Your task to perform on an android device: View the shopping cart on amazon. Add "beats solo 3" to the cart on amazon, then select checkout. Image 0: 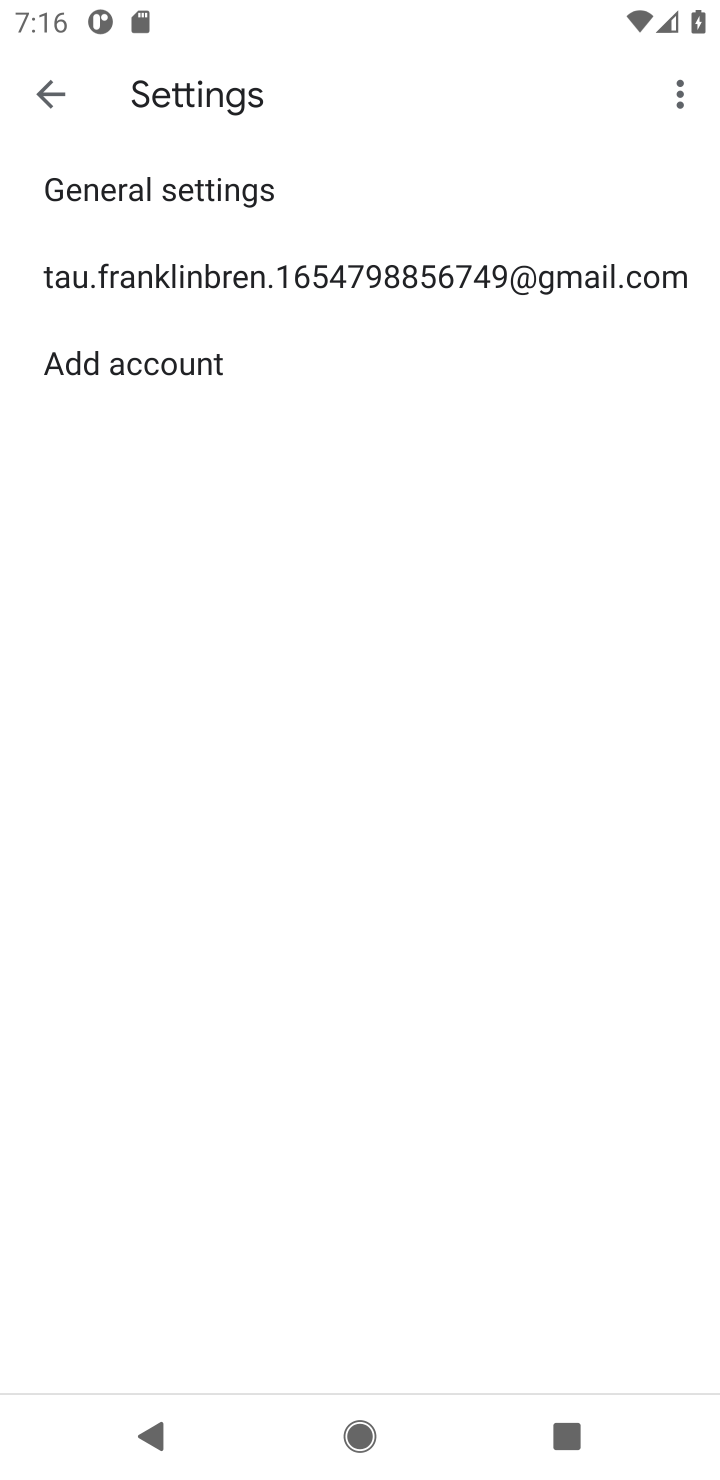
Step 0: press home button
Your task to perform on an android device: View the shopping cart on amazon. Add "beats solo 3" to the cart on amazon, then select checkout. Image 1: 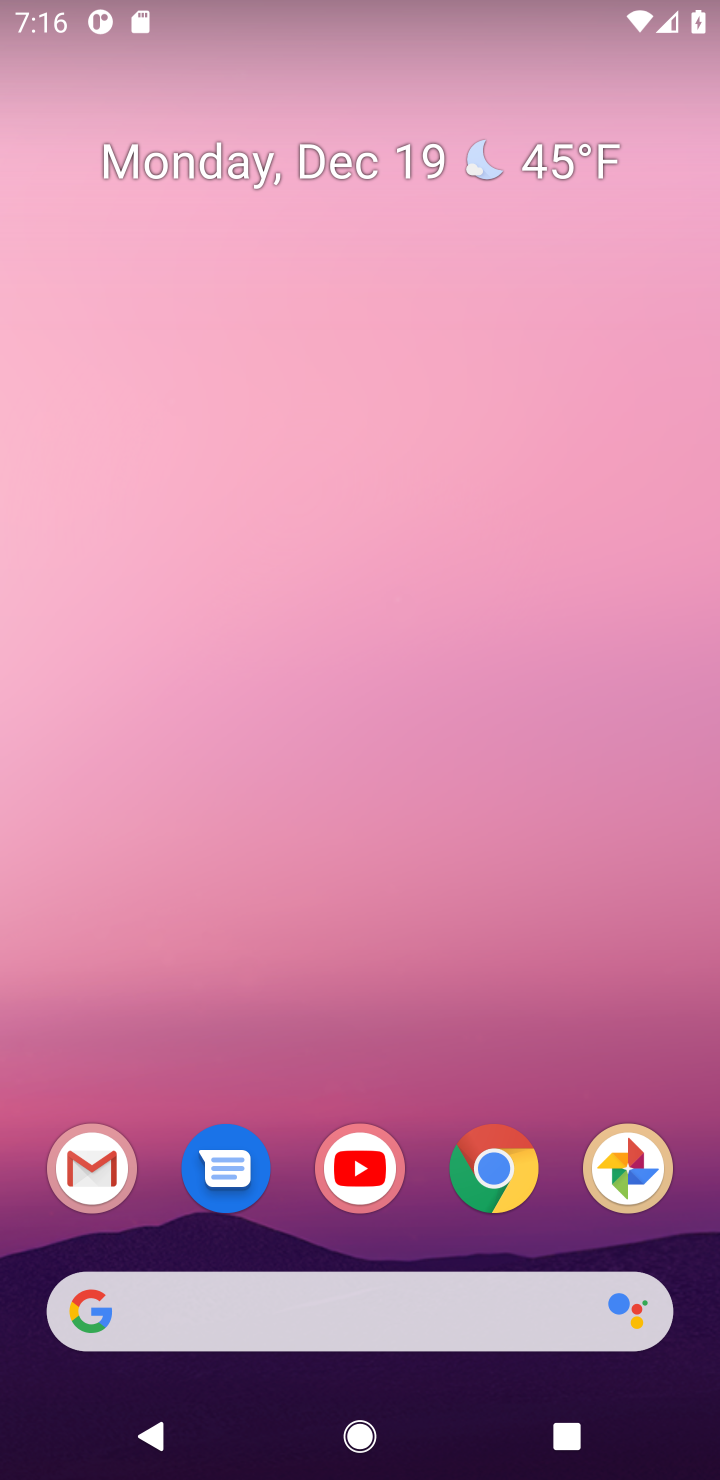
Step 1: click (482, 1170)
Your task to perform on an android device: View the shopping cart on amazon. Add "beats solo 3" to the cart on amazon, then select checkout. Image 2: 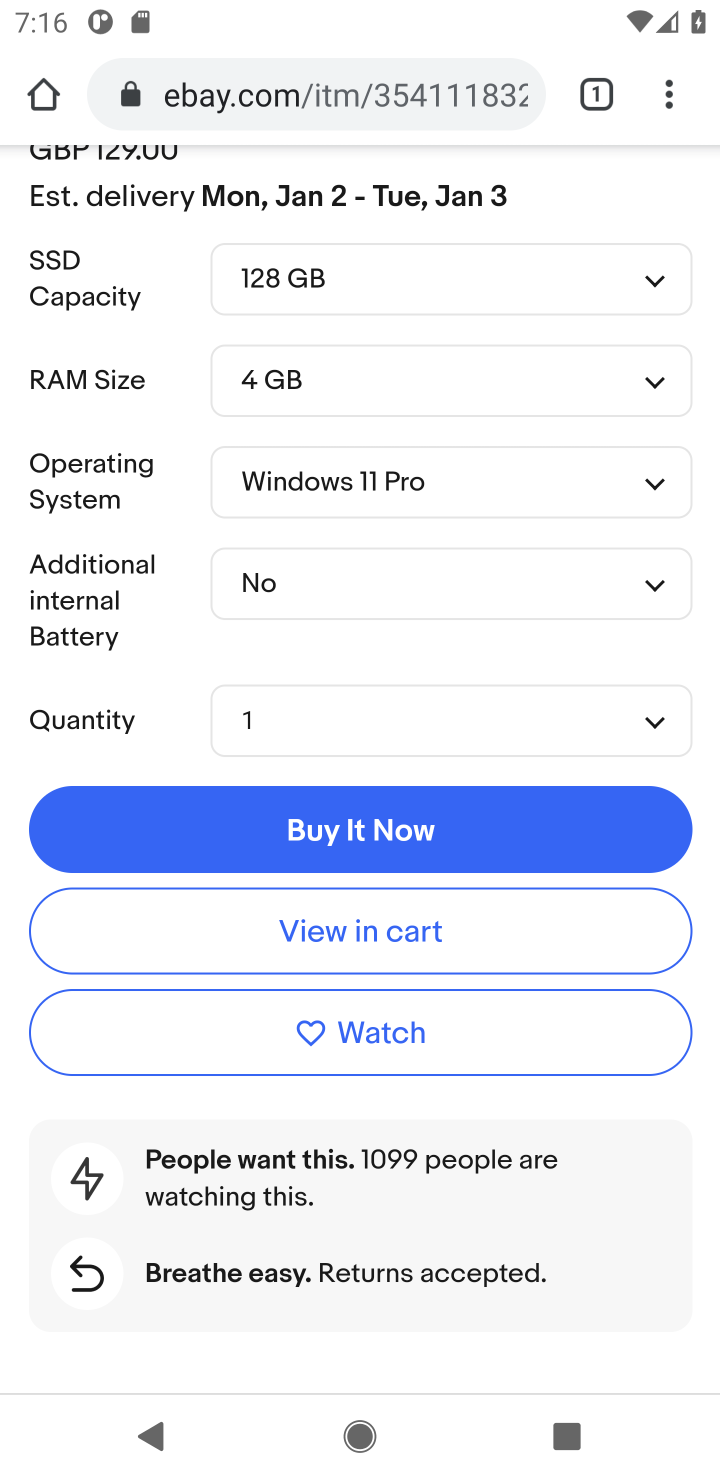
Step 2: click (254, 110)
Your task to perform on an android device: View the shopping cart on amazon. Add "beats solo 3" to the cart on amazon, then select checkout. Image 3: 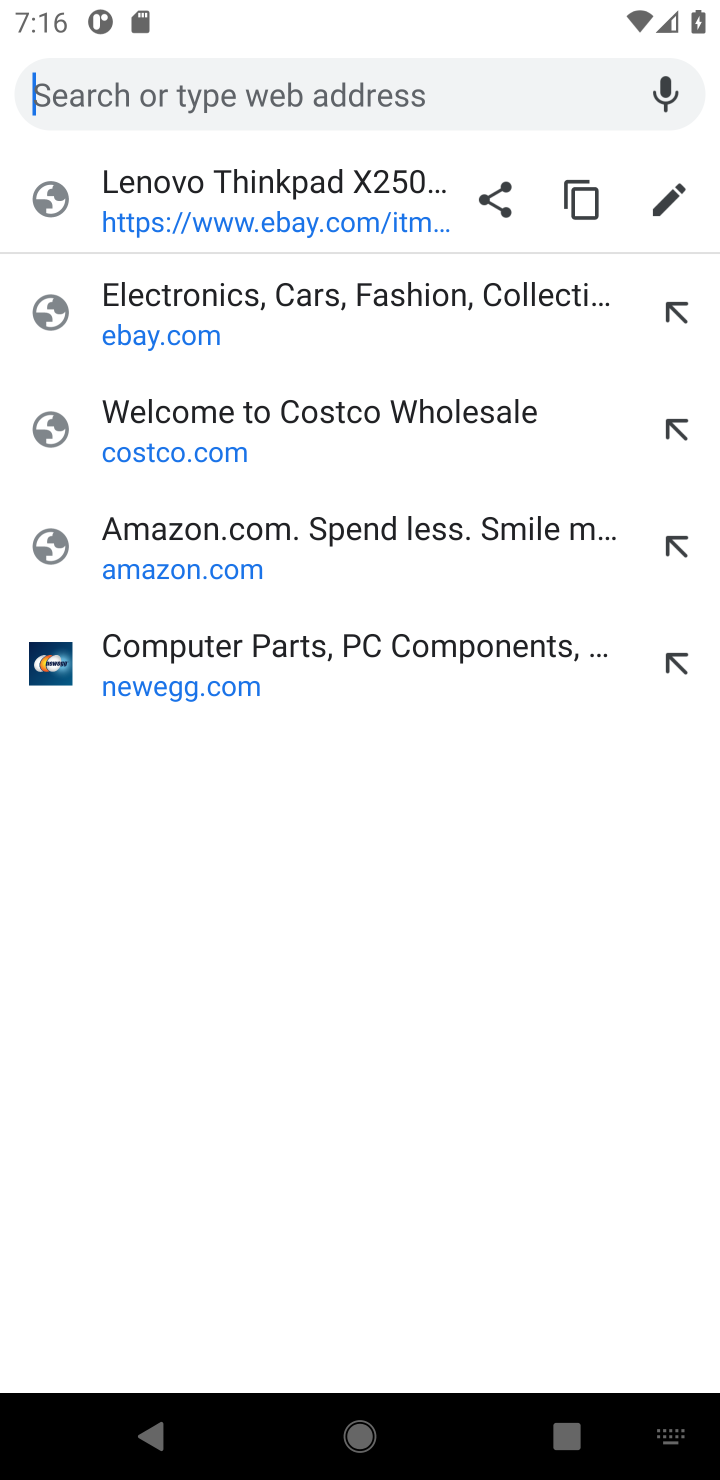
Step 3: click (157, 508)
Your task to perform on an android device: View the shopping cart on amazon. Add "beats solo 3" to the cart on amazon, then select checkout. Image 4: 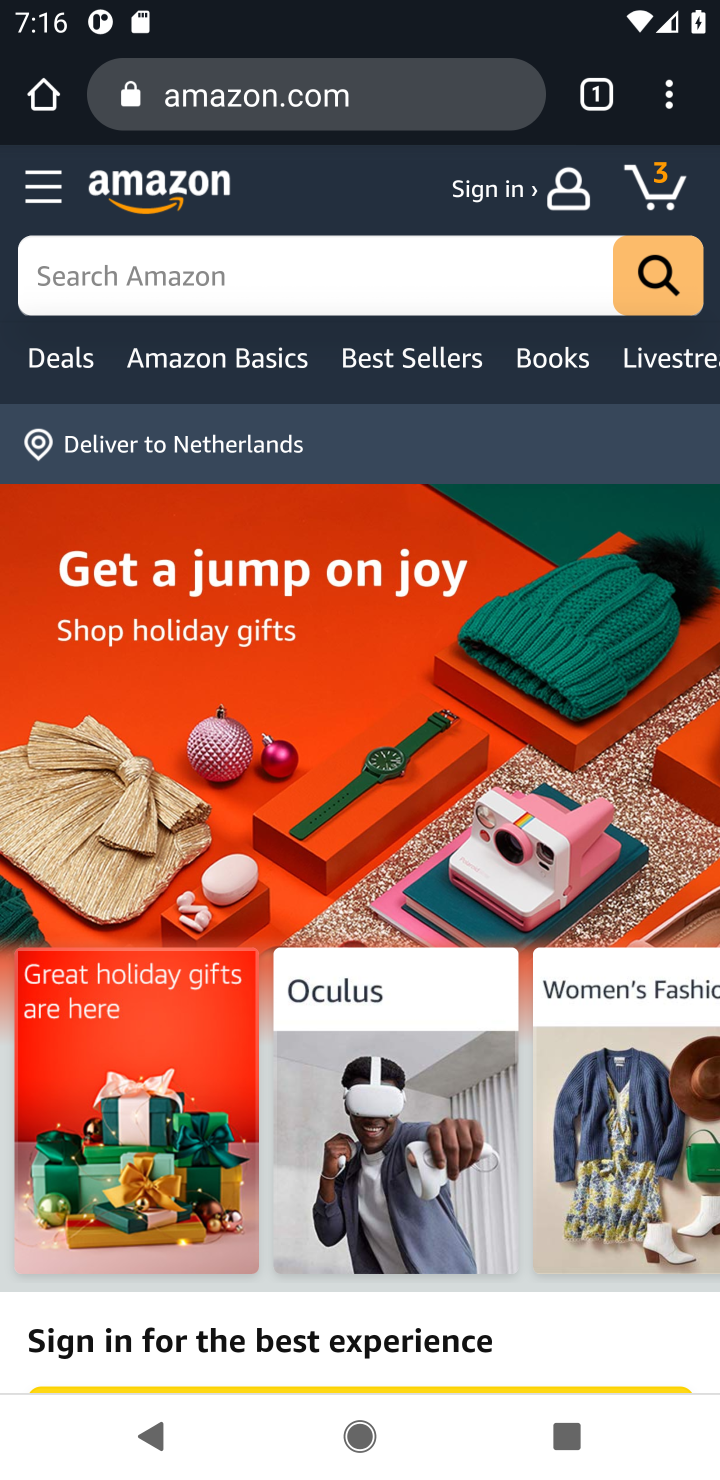
Step 4: click (657, 184)
Your task to perform on an android device: View the shopping cart on amazon. Add "beats solo 3" to the cart on amazon, then select checkout. Image 5: 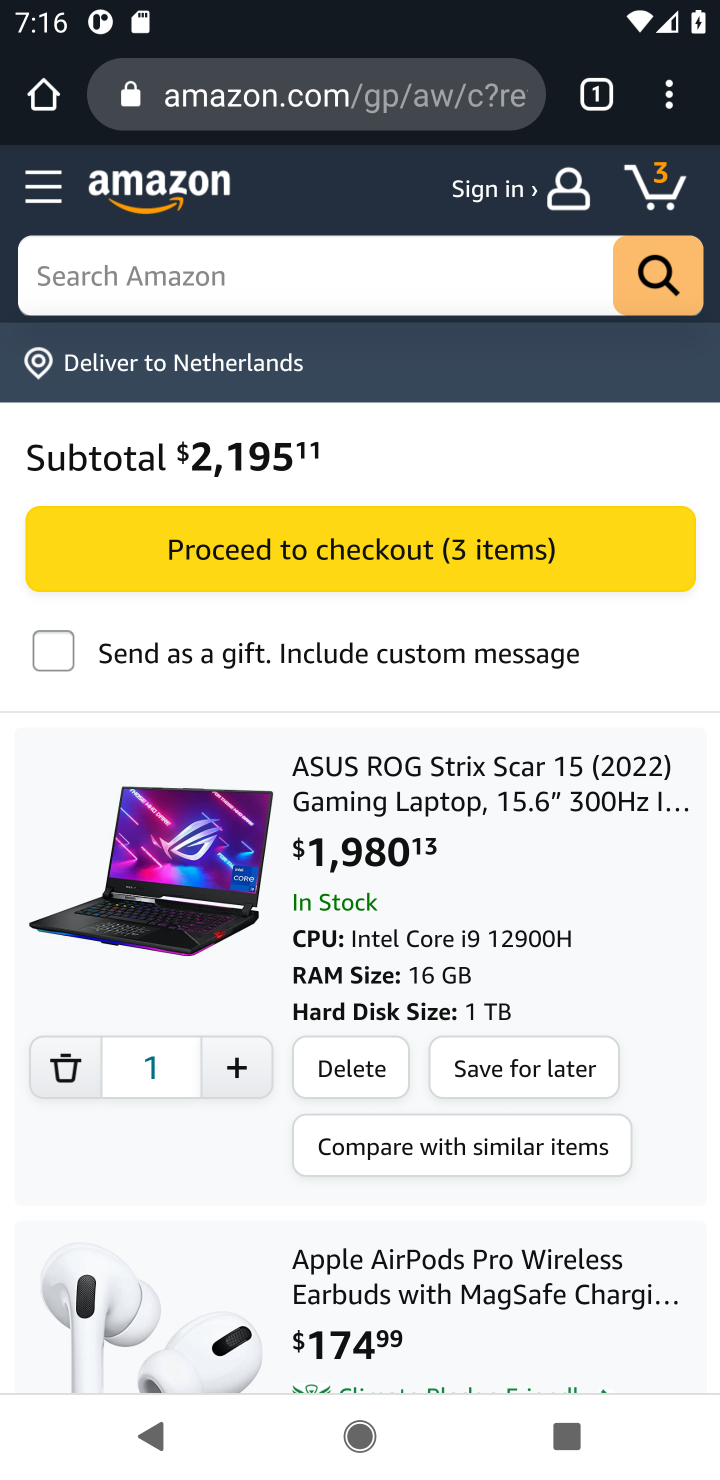
Step 5: click (212, 296)
Your task to perform on an android device: View the shopping cart on amazon. Add "beats solo 3" to the cart on amazon, then select checkout. Image 6: 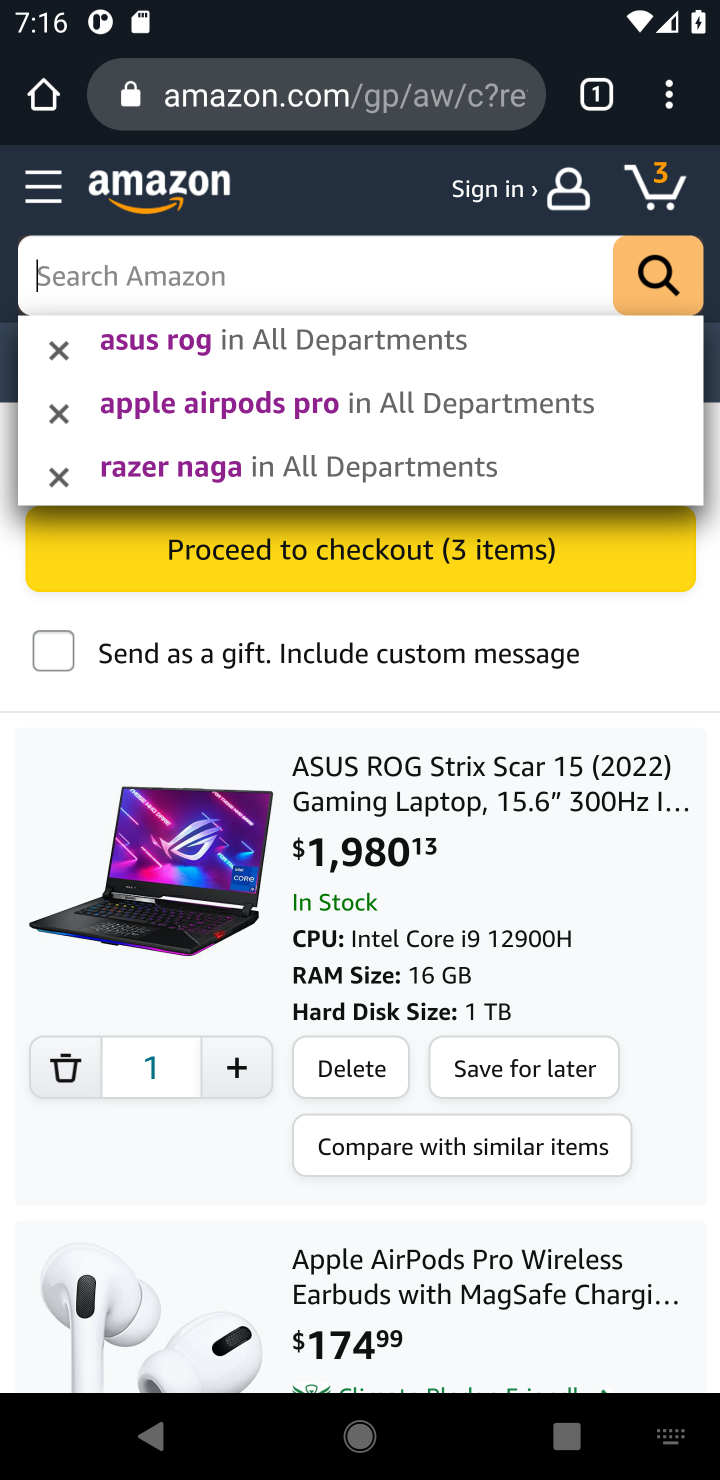
Step 6: type "beats solo 3"
Your task to perform on an android device: View the shopping cart on amazon. Add "beats solo 3" to the cart on amazon, then select checkout. Image 7: 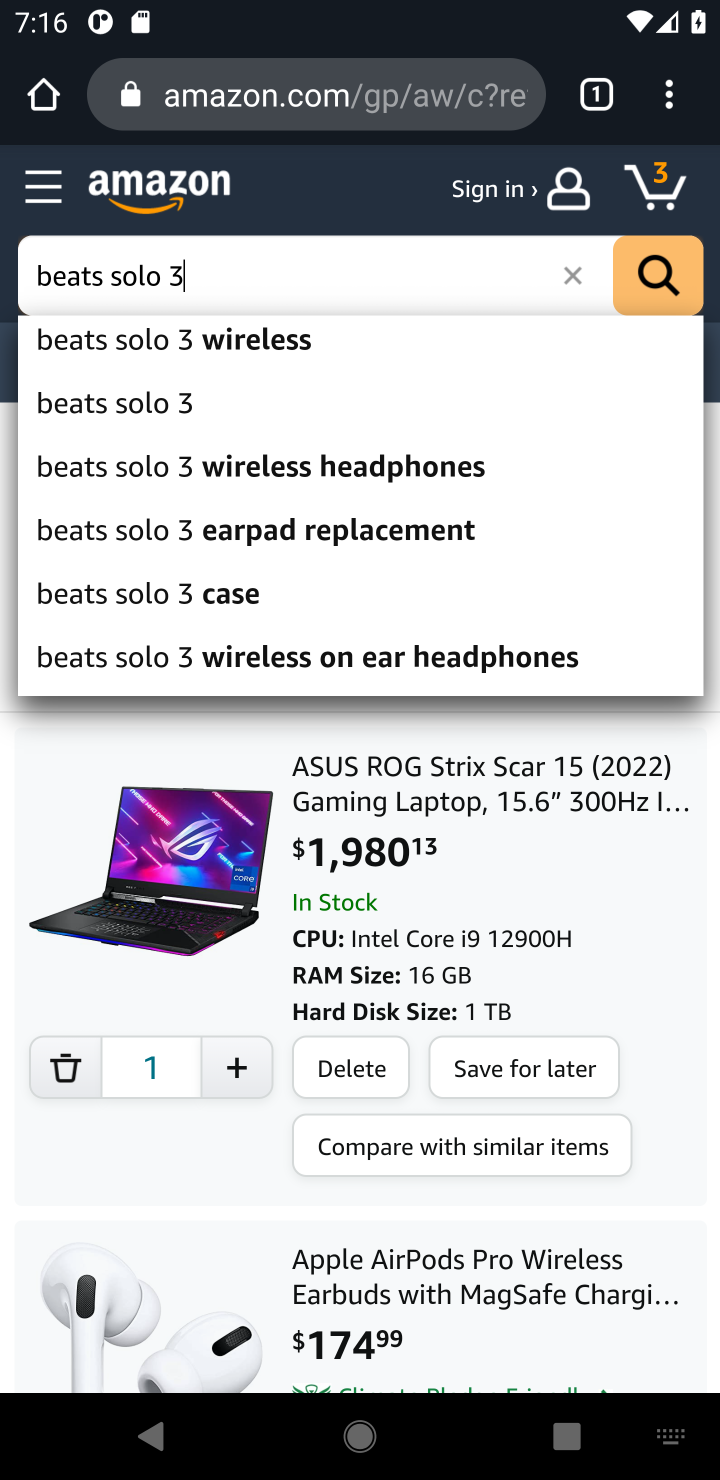
Step 7: click (146, 413)
Your task to perform on an android device: View the shopping cart on amazon. Add "beats solo 3" to the cart on amazon, then select checkout. Image 8: 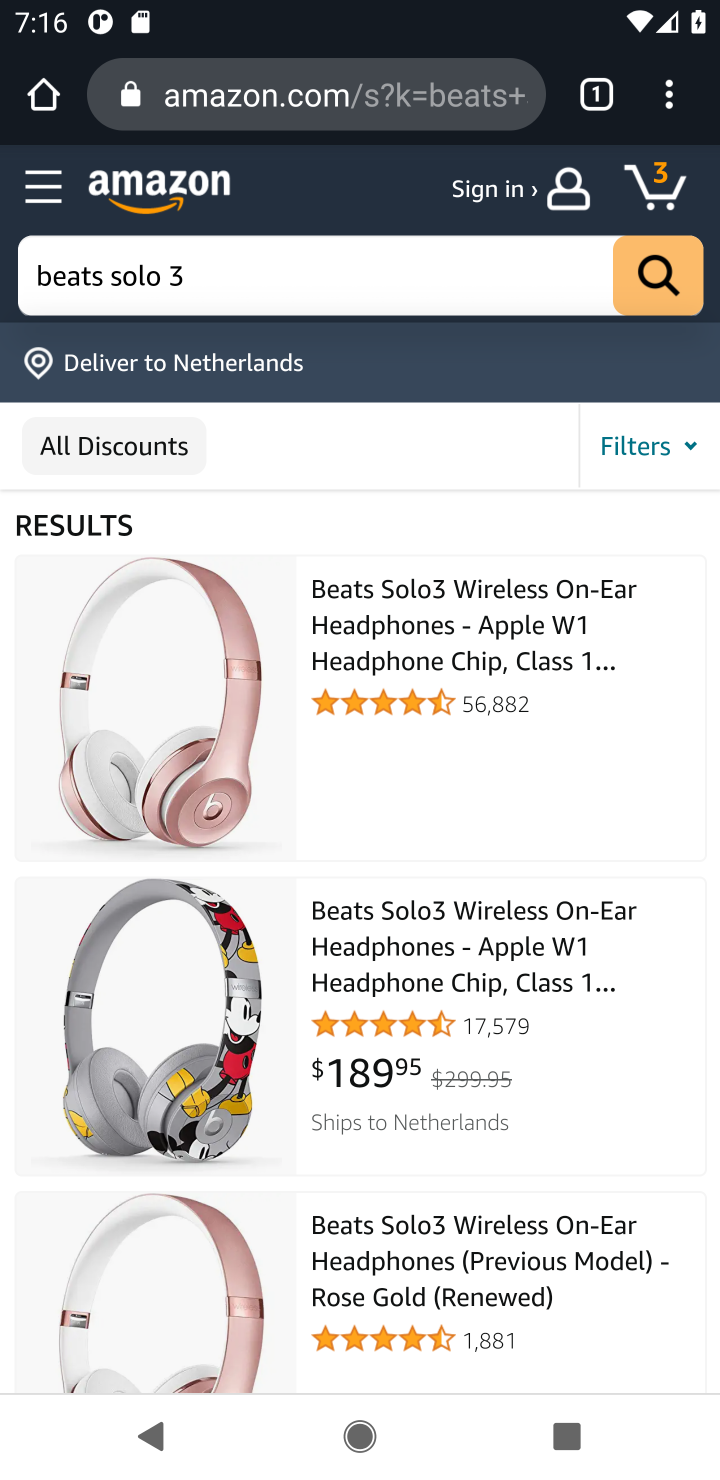
Step 8: drag from (358, 916) to (377, 666)
Your task to perform on an android device: View the shopping cart on amazon. Add "beats solo 3" to the cart on amazon, then select checkout. Image 9: 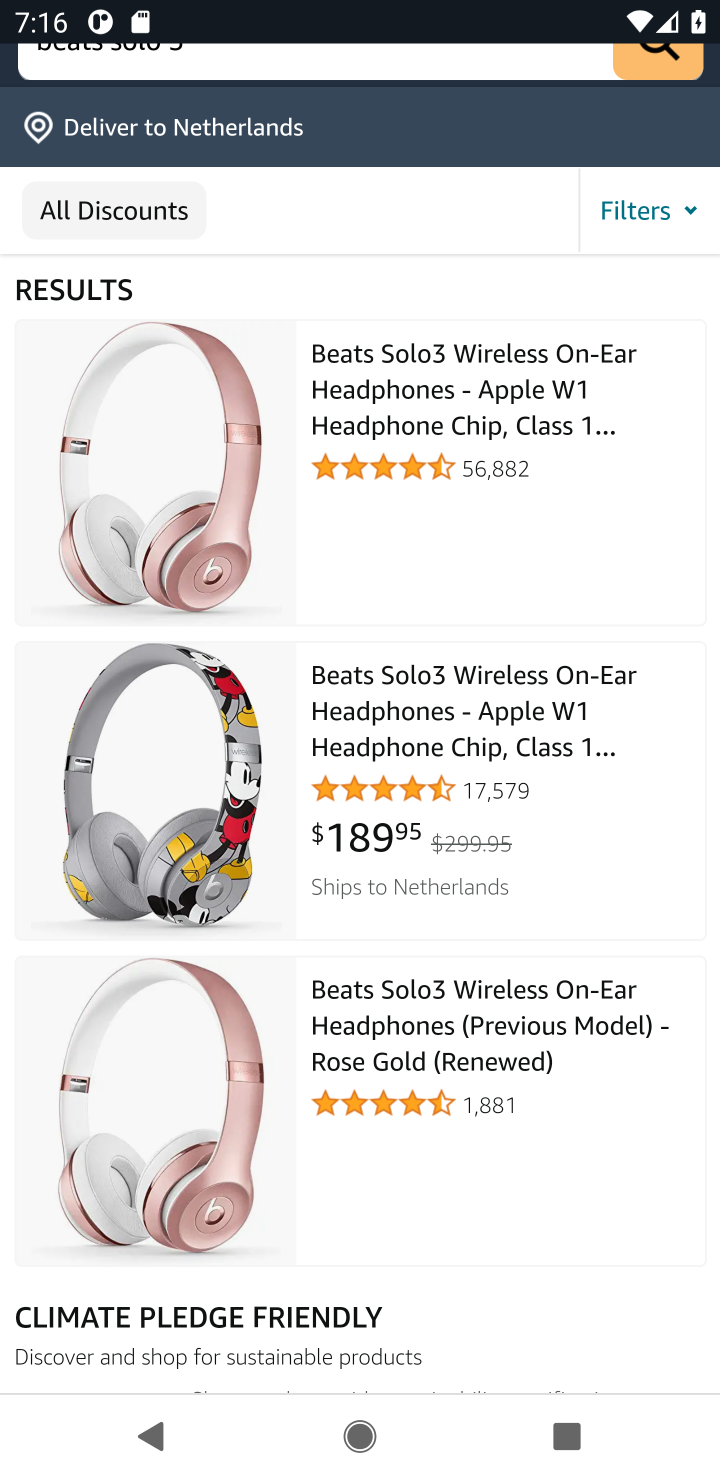
Step 9: click (377, 722)
Your task to perform on an android device: View the shopping cart on amazon. Add "beats solo 3" to the cart on amazon, then select checkout. Image 10: 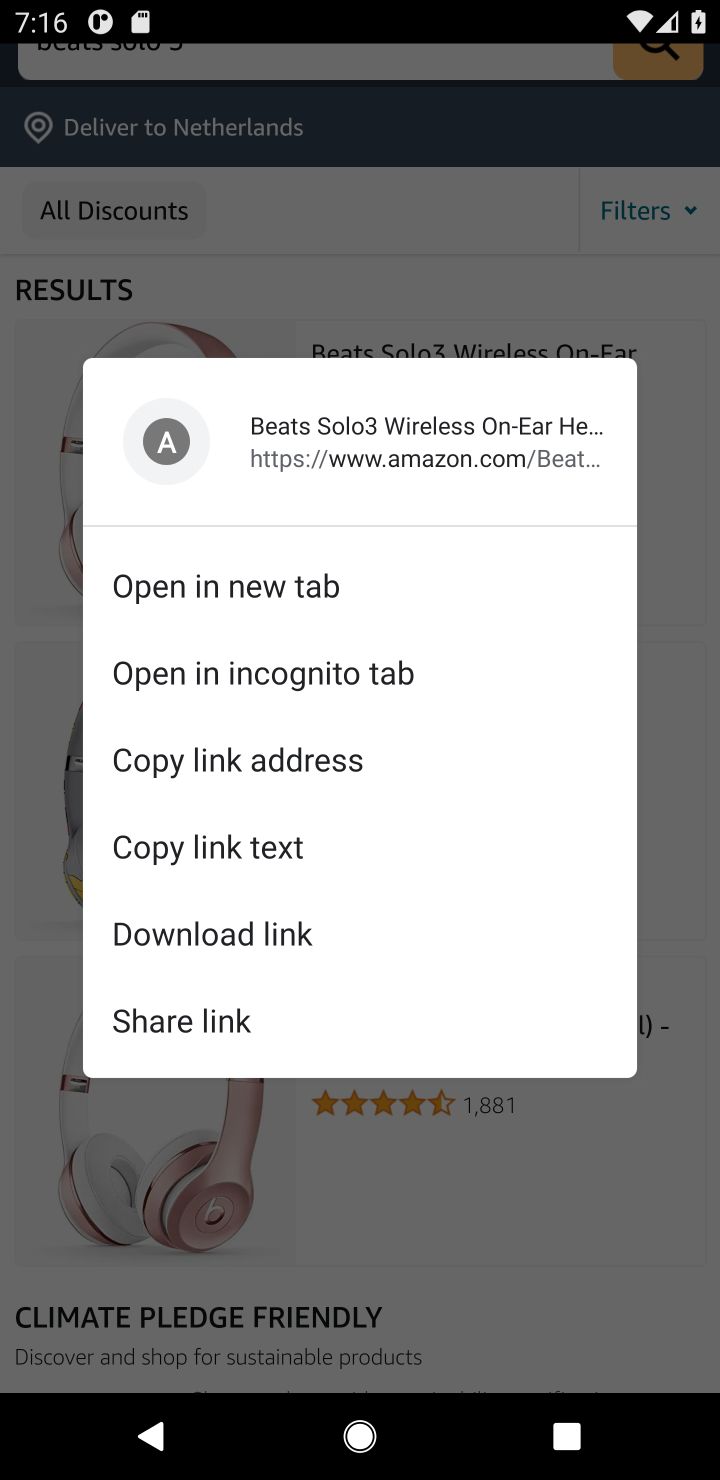
Step 10: click (676, 761)
Your task to perform on an android device: View the shopping cart on amazon. Add "beats solo 3" to the cart on amazon, then select checkout. Image 11: 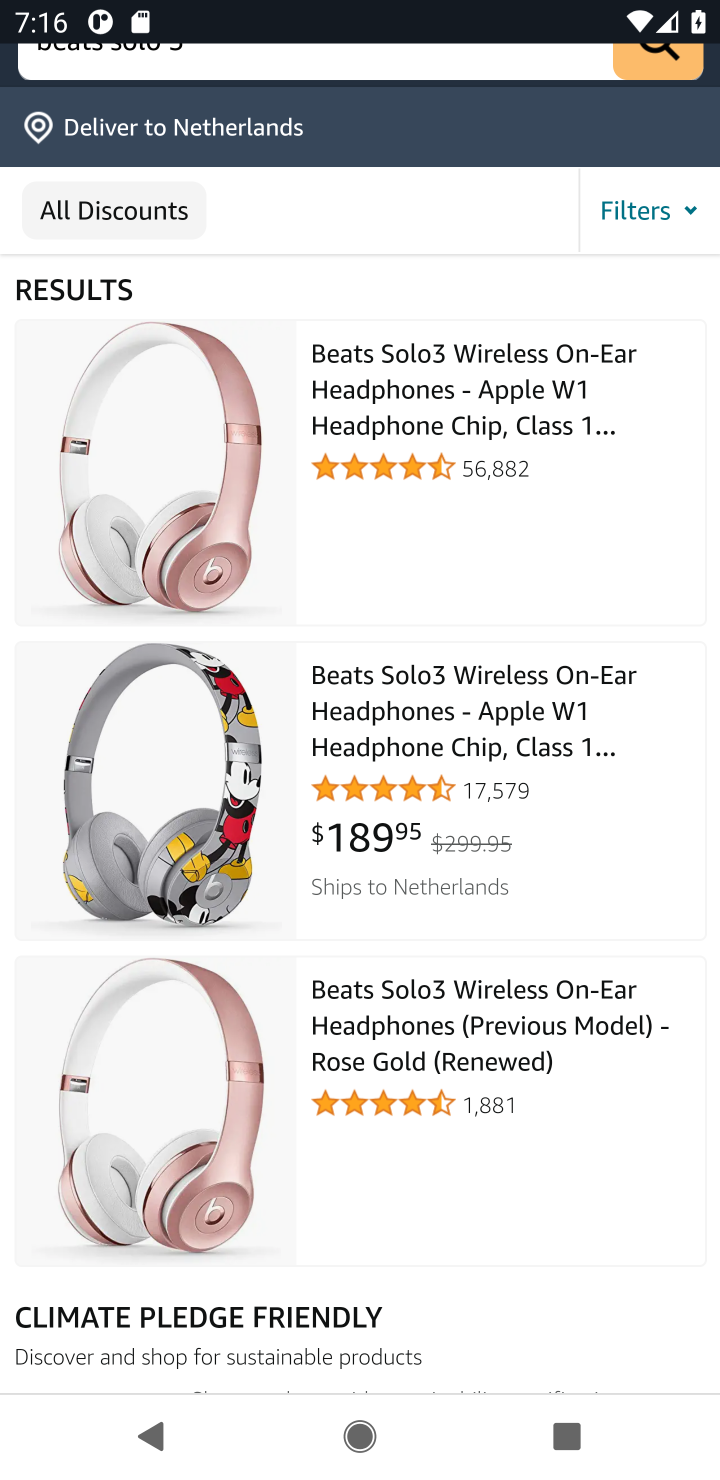
Step 11: click (380, 706)
Your task to perform on an android device: View the shopping cart on amazon. Add "beats solo 3" to the cart on amazon, then select checkout. Image 12: 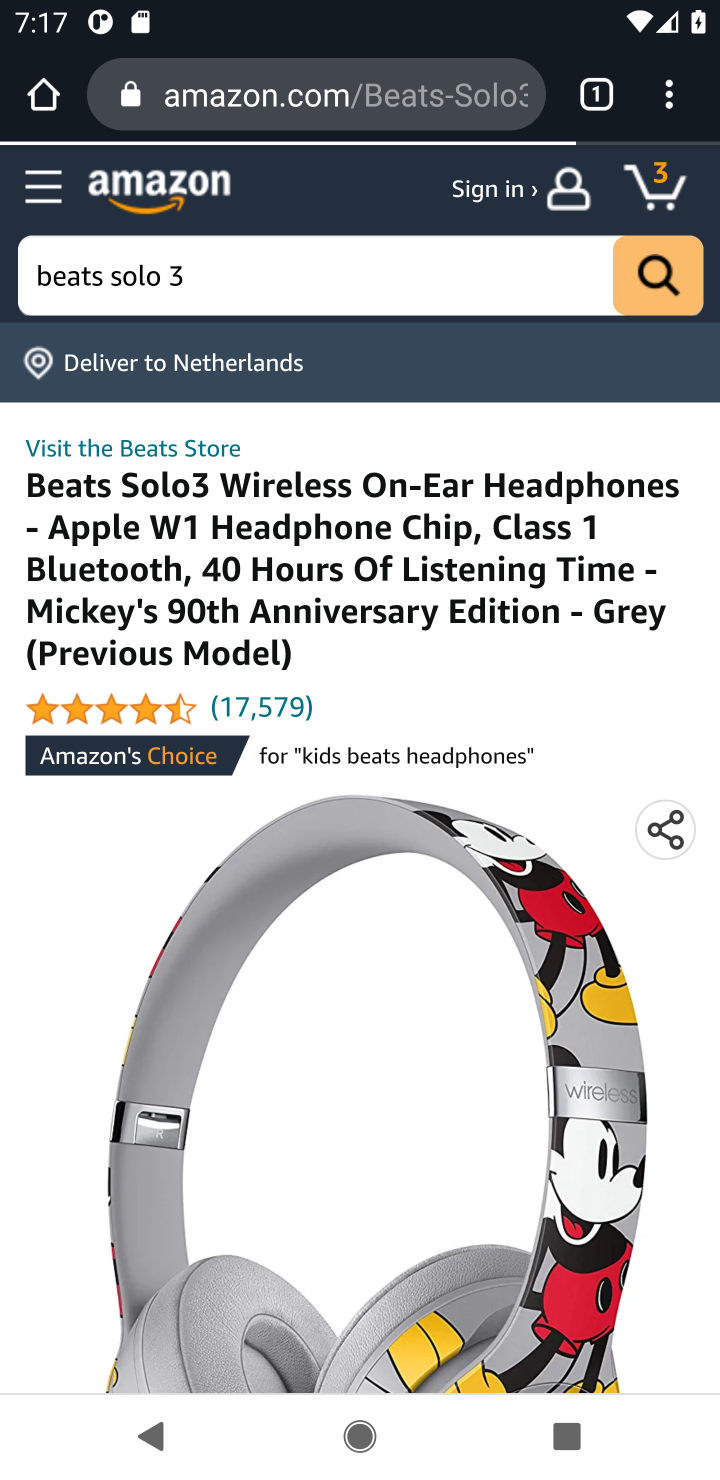
Step 12: drag from (338, 882) to (370, 260)
Your task to perform on an android device: View the shopping cart on amazon. Add "beats solo 3" to the cart on amazon, then select checkout. Image 13: 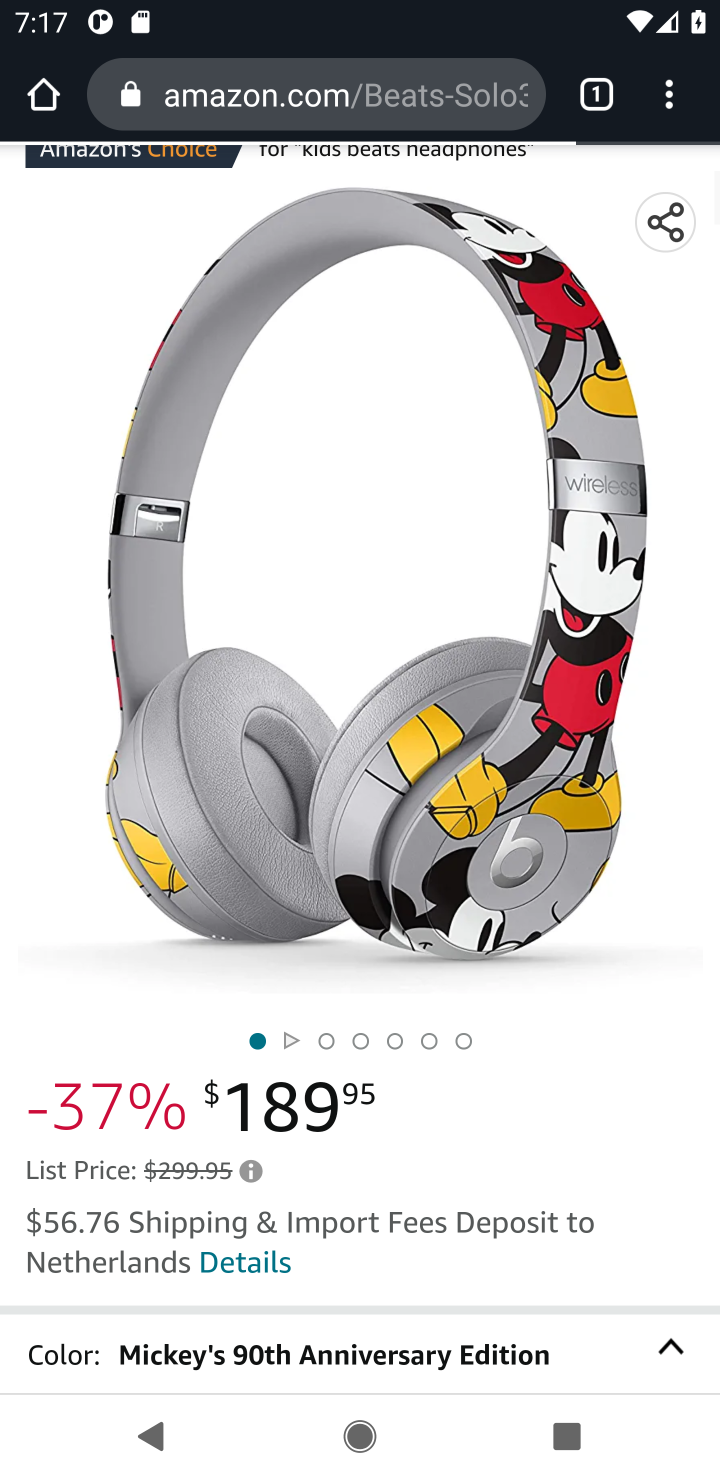
Step 13: drag from (310, 748) to (325, 252)
Your task to perform on an android device: View the shopping cart on amazon. Add "beats solo 3" to the cart on amazon, then select checkout. Image 14: 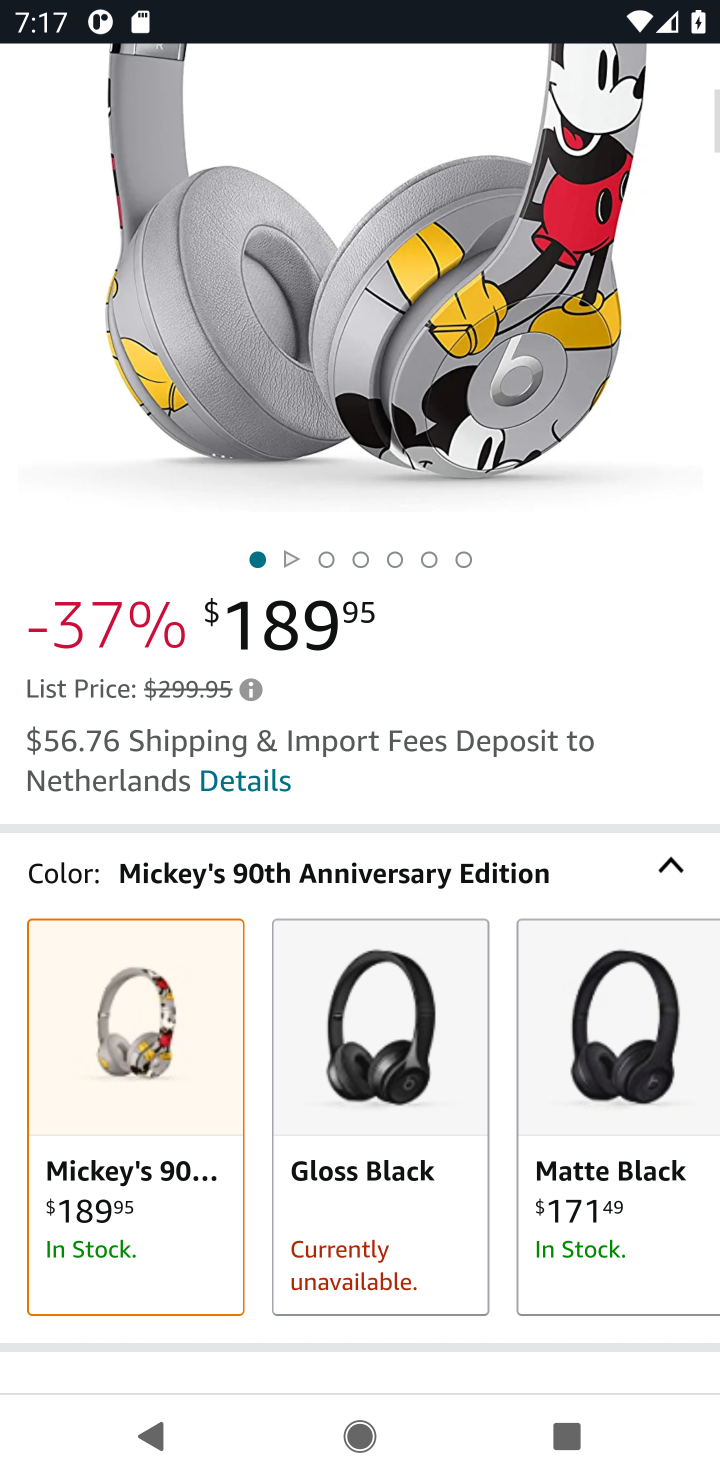
Step 14: drag from (326, 1071) to (357, 499)
Your task to perform on an android device: View the shopping cart on amazon. Add "beats solo 3" to the cart on amazon, then select checkout. Image 15: 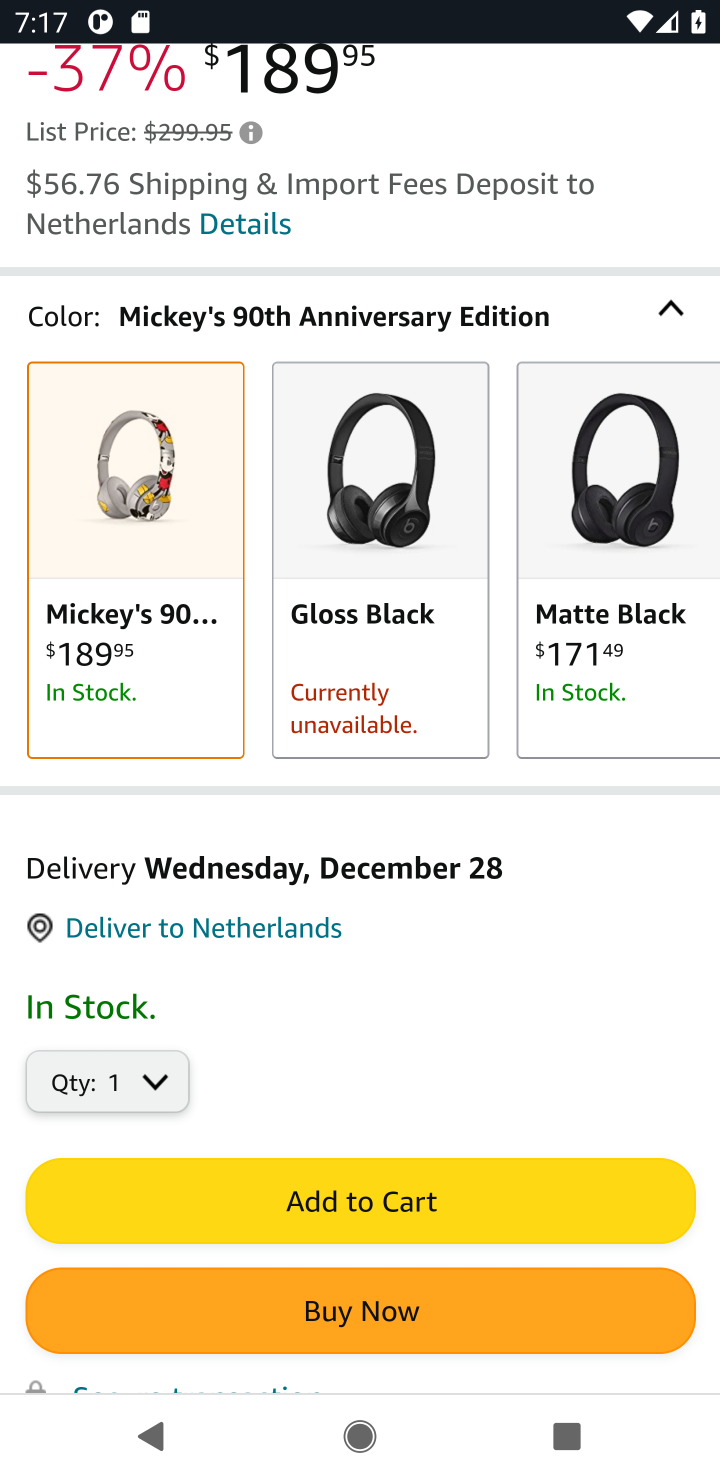
Step 15: click (310, 1193)
Your task to perform on an android device: View the shopping cart on amazon. Add "beats solo 3" to the cart on amazon, then select checkout. Image 16: 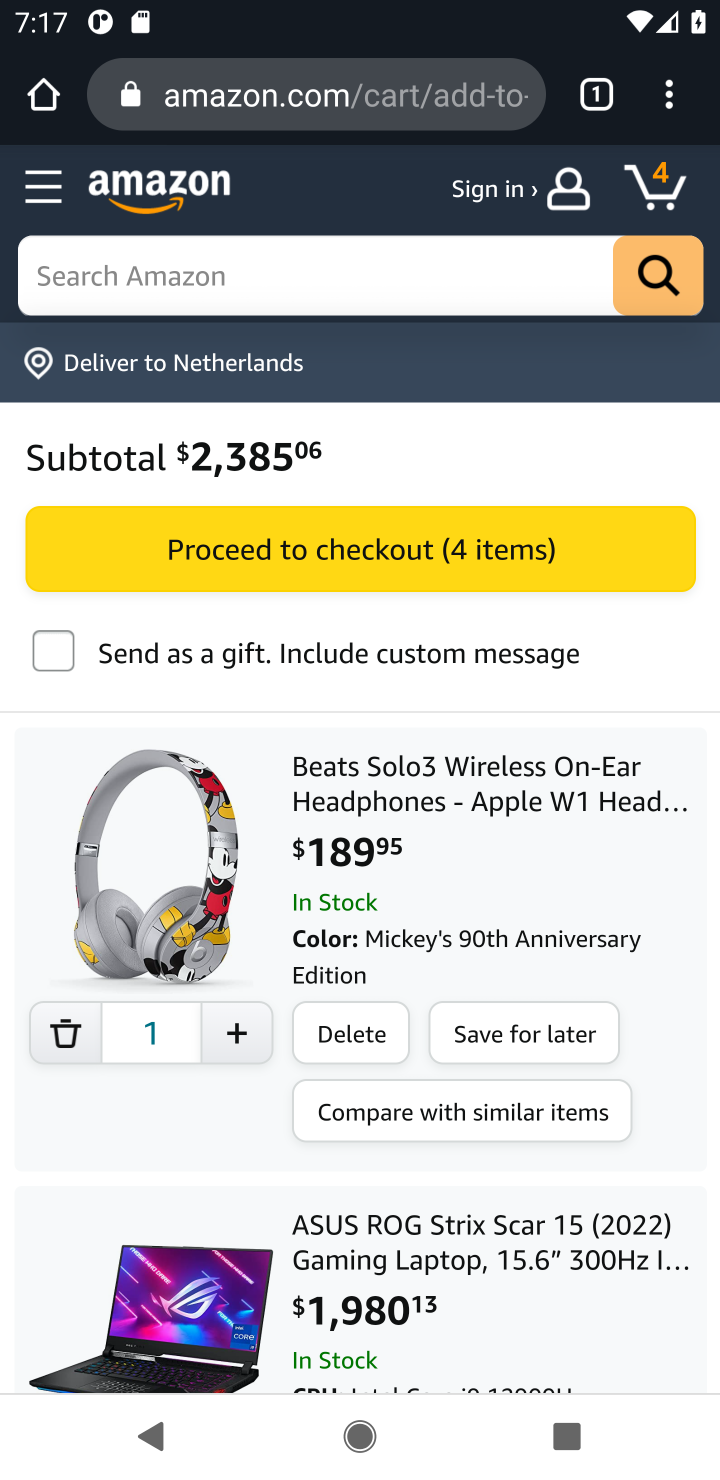
Step 16: click (321, 557)
Your task to perform on an android device: View the shopping cart on amazon. Add "beats solo 3" to the cart on amazon, then select checkout. Image 17: 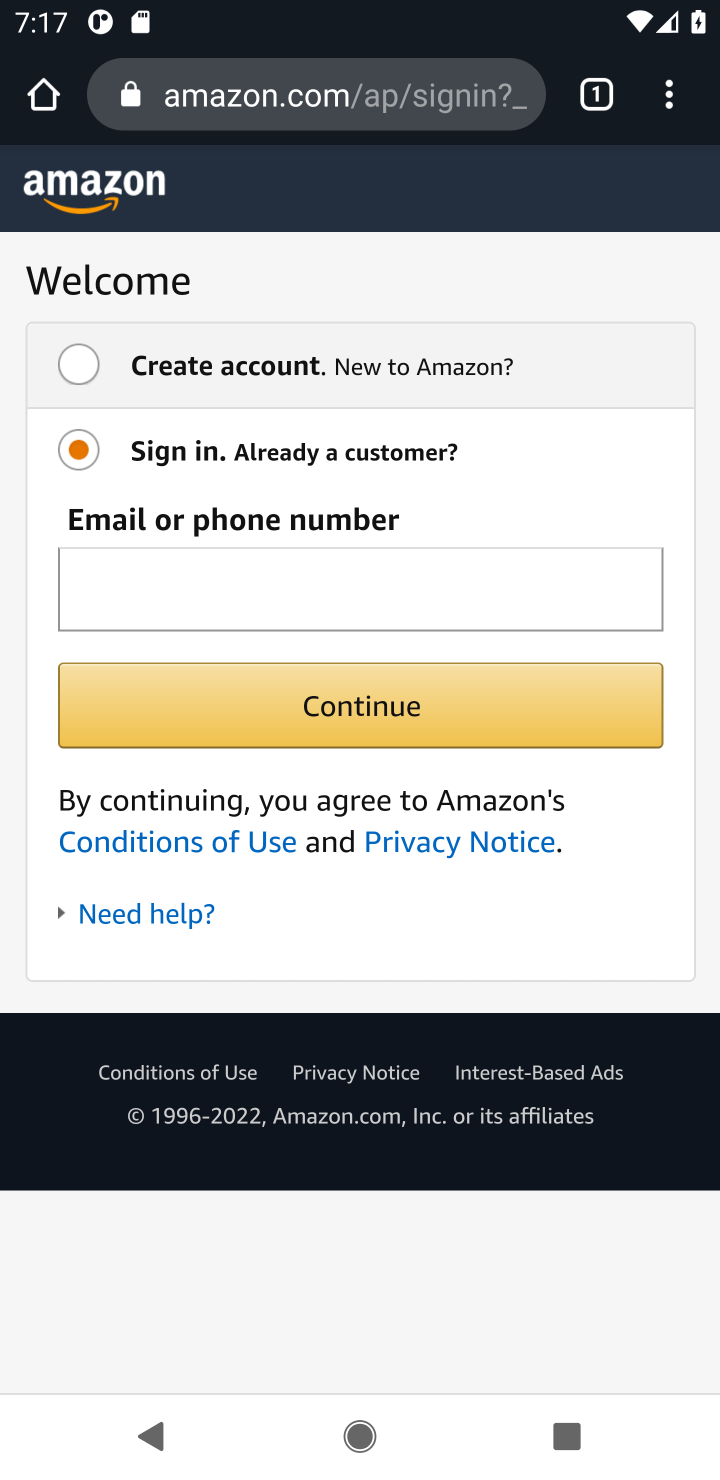
Step 17: task complete